Your task to perform on an android device: Open the Play Movies app and select the watchlist tab. Image 0: 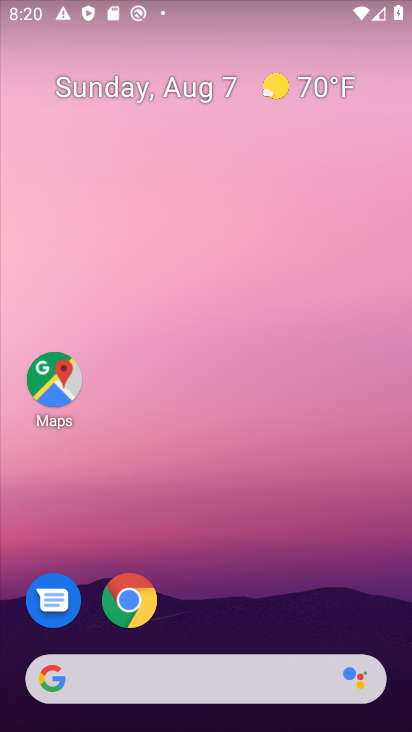
Step 0: drag from (191, 593) to (282, 146)
Your task to perform on an android device: Open the Play Movies app and select the watchlist tab. Image 1: 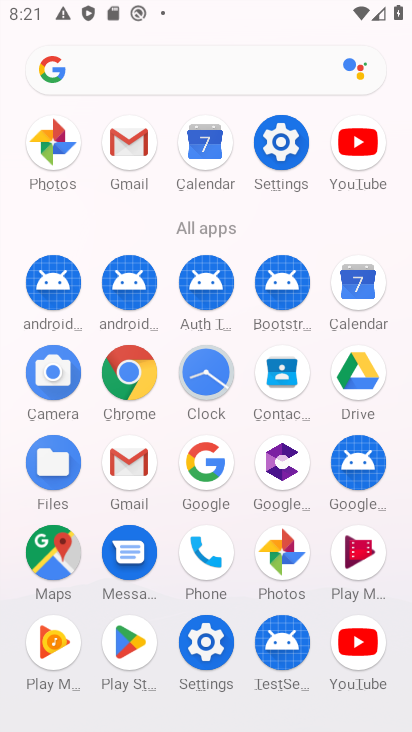
Step 1: click (360, 557)
Your task to perform on an android device: Open the Play Movies app and select the watchlist tab. Image 2: 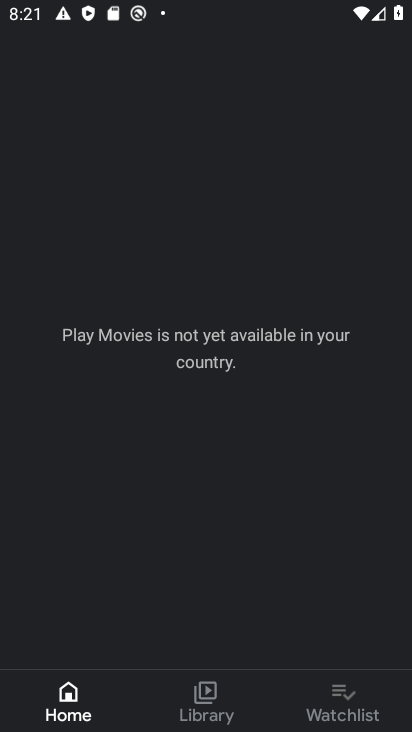
Step 2: click (337, 698)
Your task to perform on an android device: Open the Play Movies app and select the watchlist tab. Image 3: 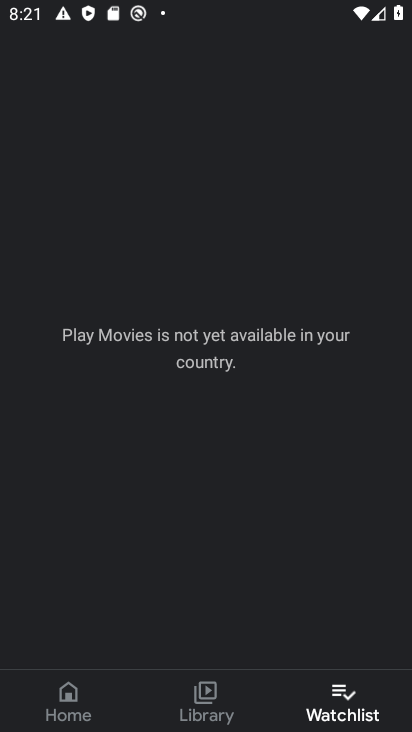
Step 3: task complete